Your task to perform on an android device: Go to location settings Image 0: 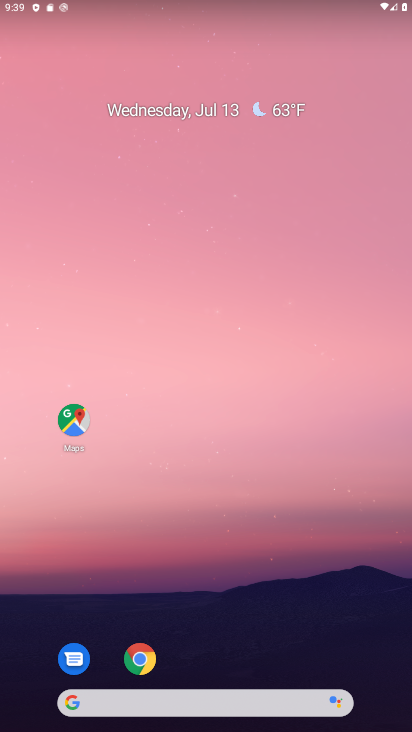
Step 0: drag from (210, 688) to (289, 130)
Your task to perform on an android device: Go to location settings Image 1: 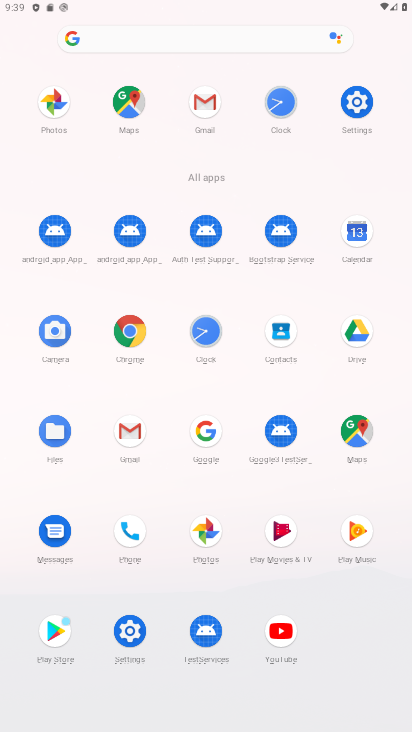
Step 1: click (133, 631)
Your task to perform on an android device: Go to location settings Image 2: 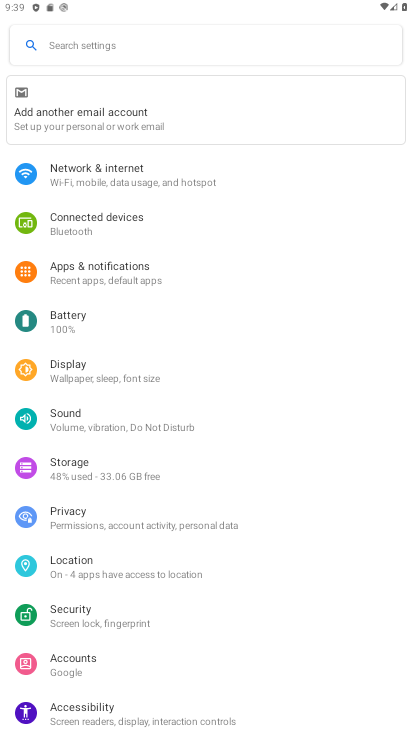
Step 2: drag from (130, 611) to (241, 160)
Your task to perform on an android device: Go to location settings Image 3: 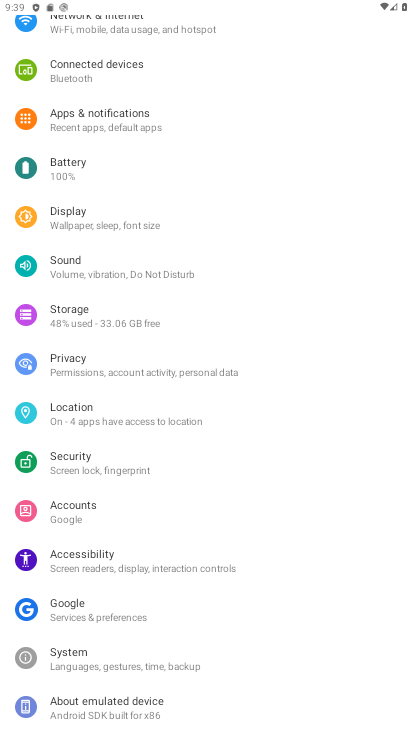
Step 3: click (87, 413)
Your task to perform on an android device: Go to location settings Image 4: 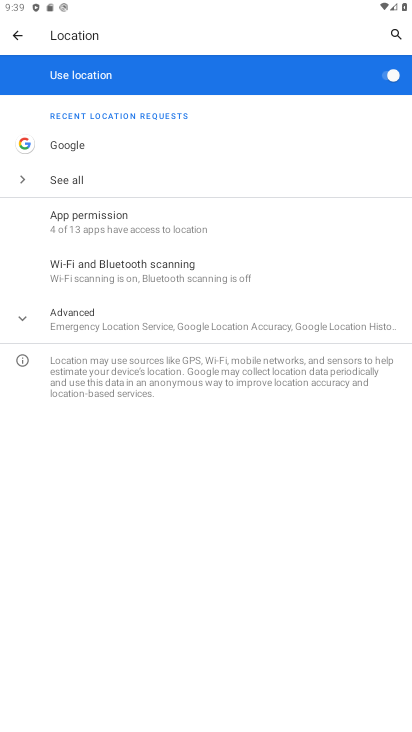
Step 4: click (127, 323)
Your task to perform on an android device: Go to location settings Image 5: 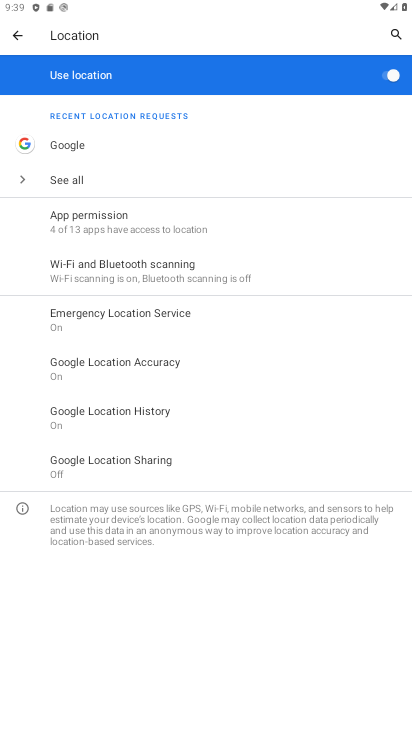
Step 5: task complete